Your task to perform on an android device: open device folders in google photos Image 0: 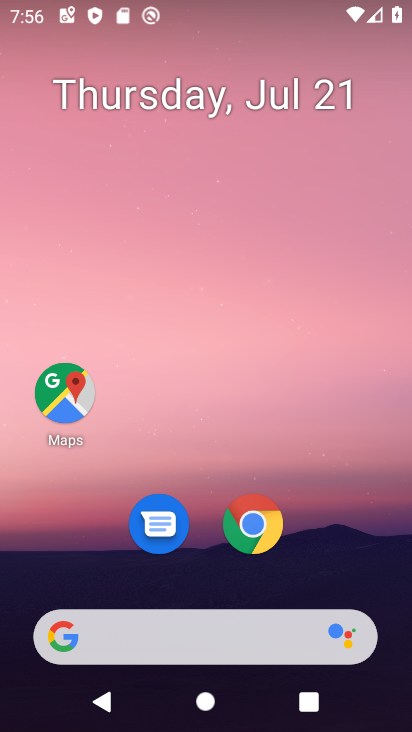
Step 0: drag from (205, 637) to (330, 90)
Your task to perform on an android device: open device folders in google photos Image 1: 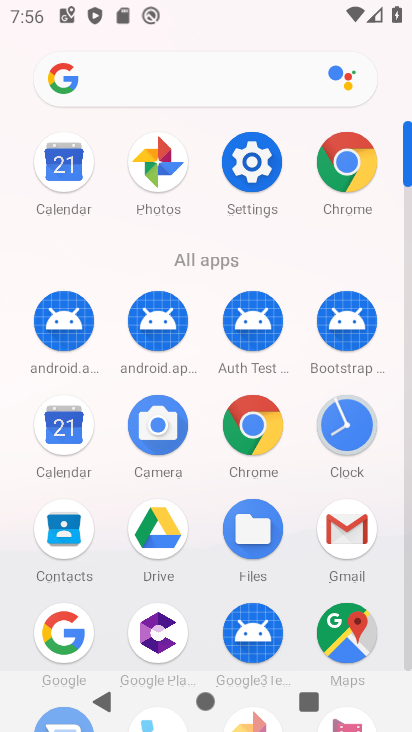
Step 1: click (169, 160)
Your task to perform on an android device: open device folders in google photos Image 2: 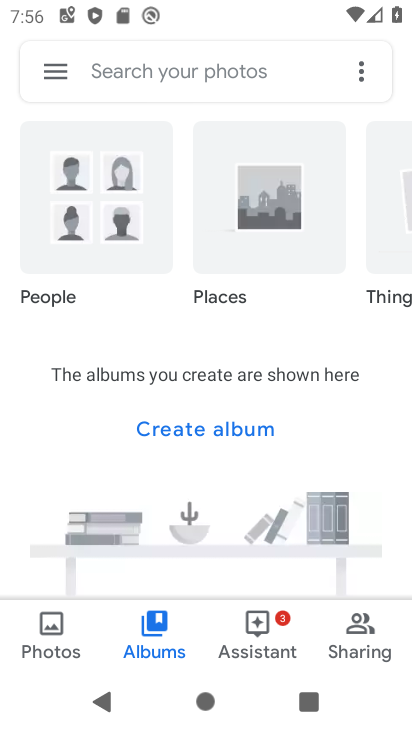
Step 2: click (60, 73)
Your task to perform on an android device: open device folders in google photos Image 3: 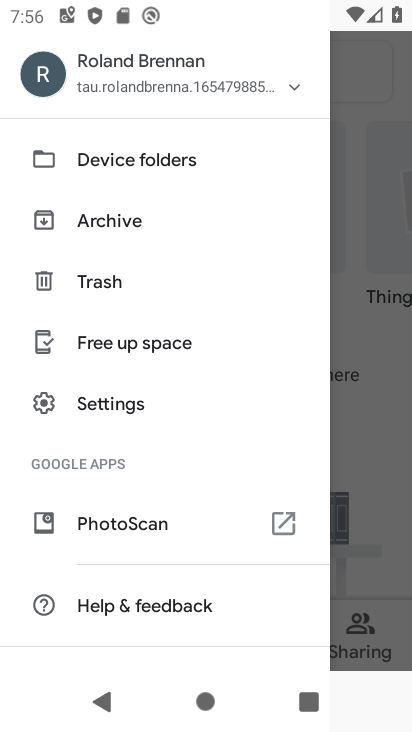
Step 3: click (123, 161)
Your task to perform on an android device: open device folders in google photos Image 4: 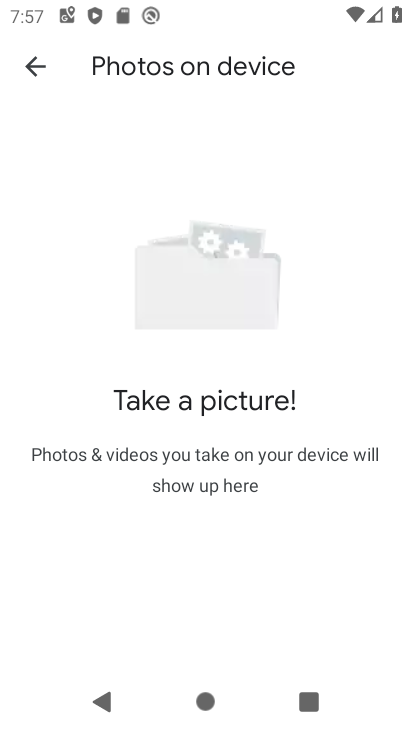
Step 4: task complete